Your task to perform on an android device: turn on translation in the chrome app Image 0: 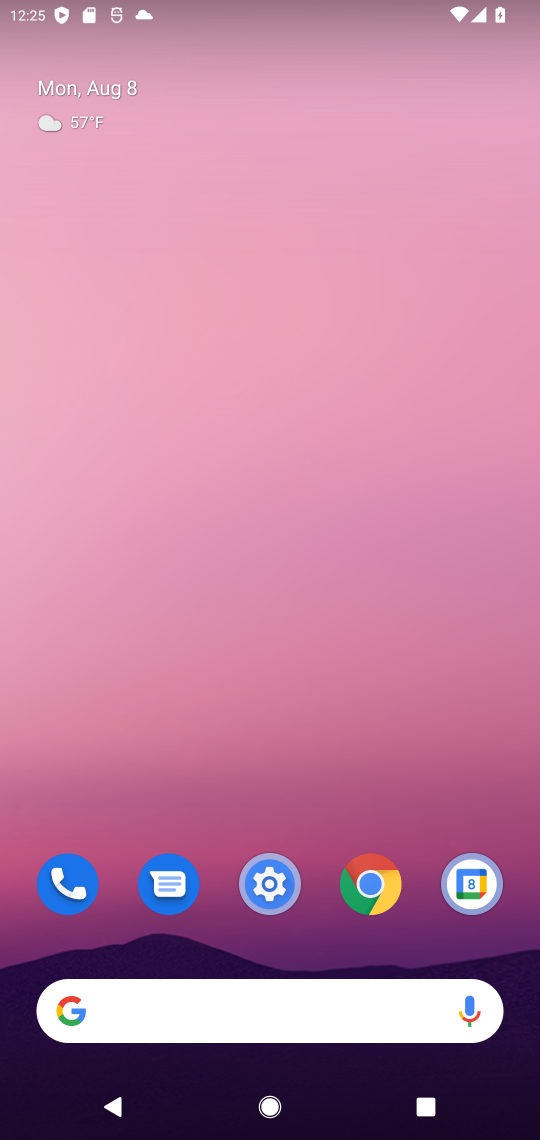
Step 0: click (352, 891)
Your task to perform on an android device: turn on translation in the chrome app Image 1: 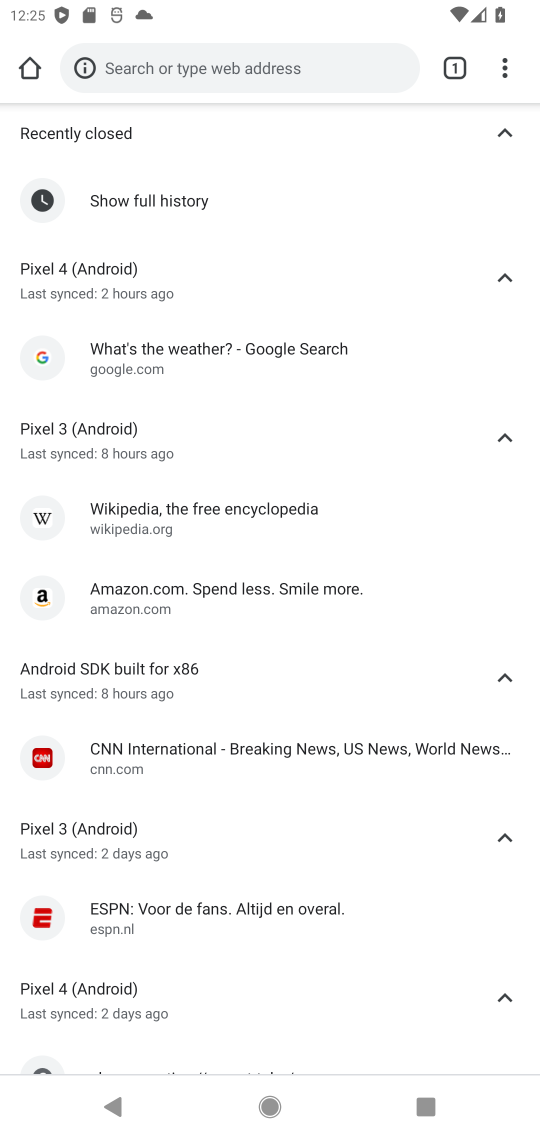
Step 1: click (492, 87)
Your task to perform on an android device: turn on translation in the chrome app Image 2: 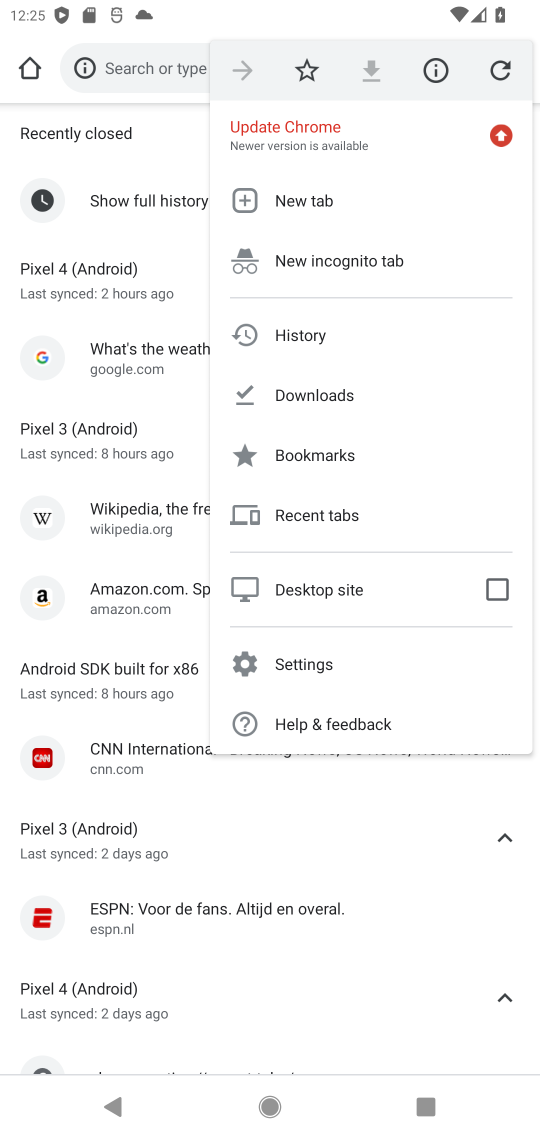
Step 2: click (348, 659)
Your task to perform on an android device: turn on translation in the chrome app Image 3: 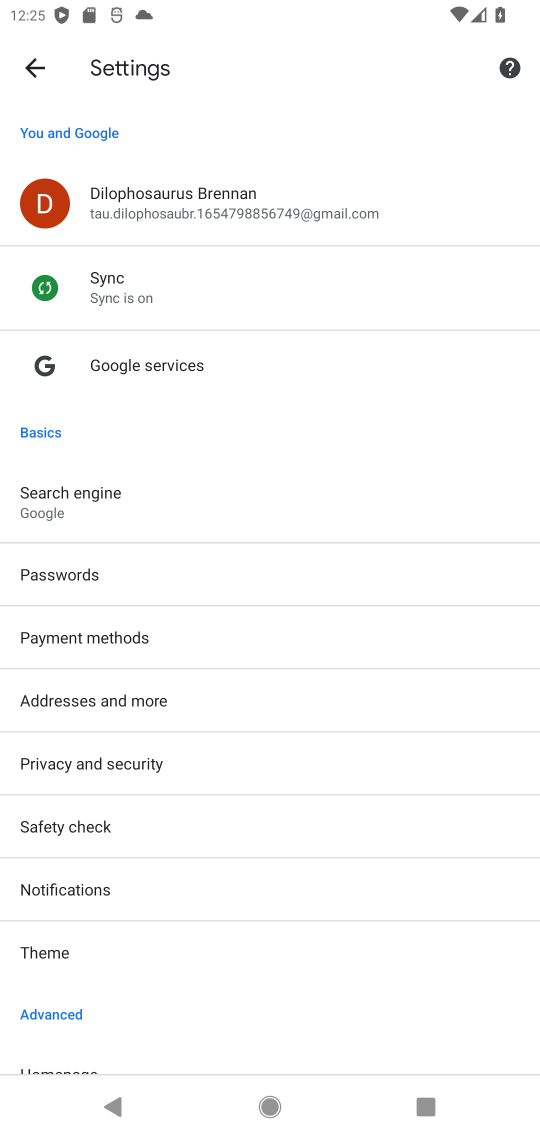
Step 3: drag from (197, 934) to (229, 175)
Your task to perform on an android device: turn on translation in the chrome app Image 4: 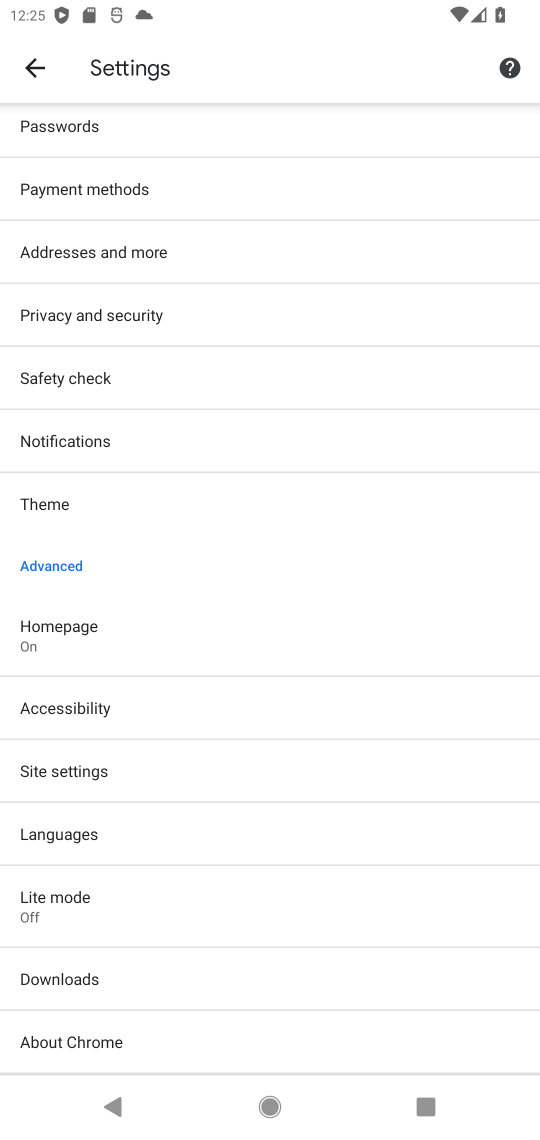
Step 4: click (155, 837)
Your task to perform on an android device: turn on translation in the chrome app Image 5: 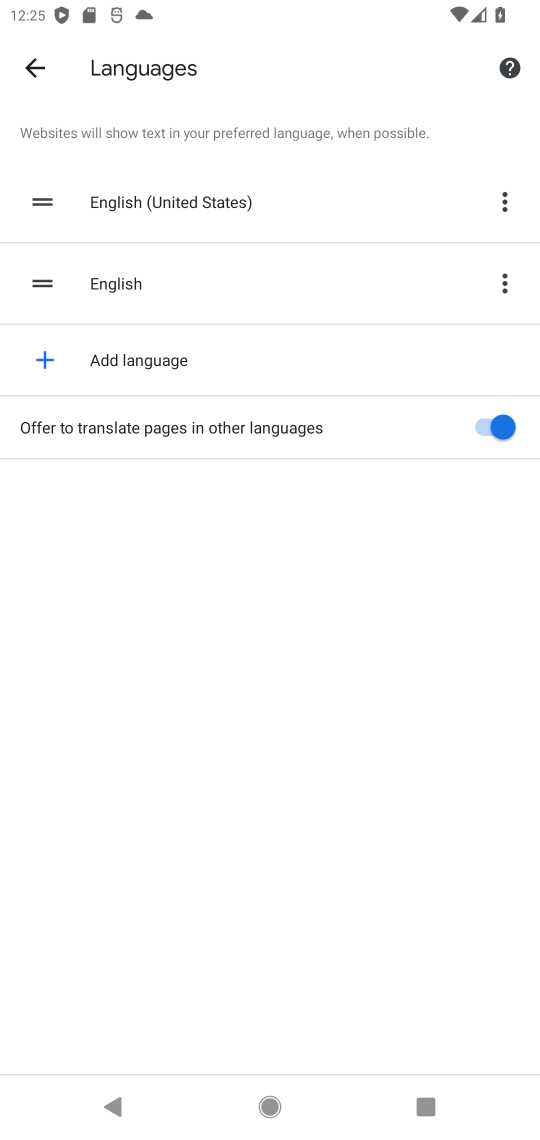
Step 5: task complete